Your task to perform on an android device: manage bookmarks in the chrome app Image 0: 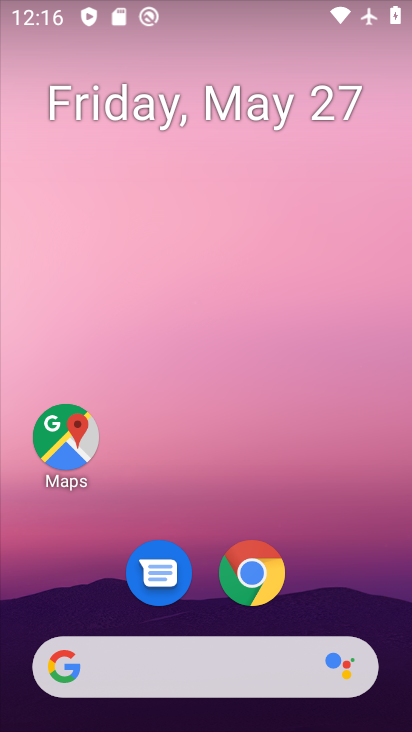
Step 0: click (252, 576)
Your task to perform on an android device: manage bookmarks in the chrome app Image 1: 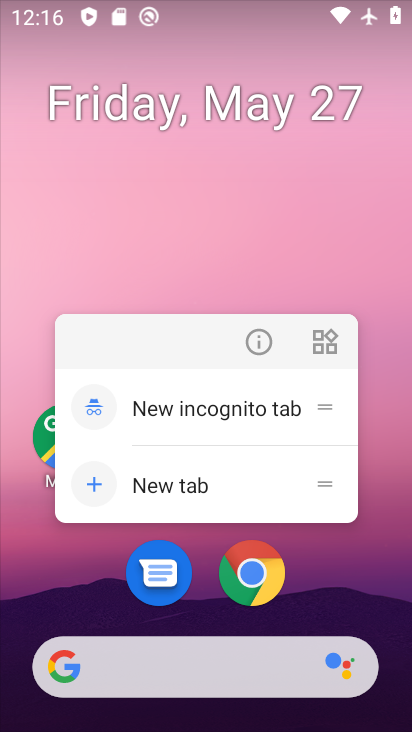
Step 1: click (252, 576)
Your task to perform on an android device: manage bookmarks in the chrome app Image 2: 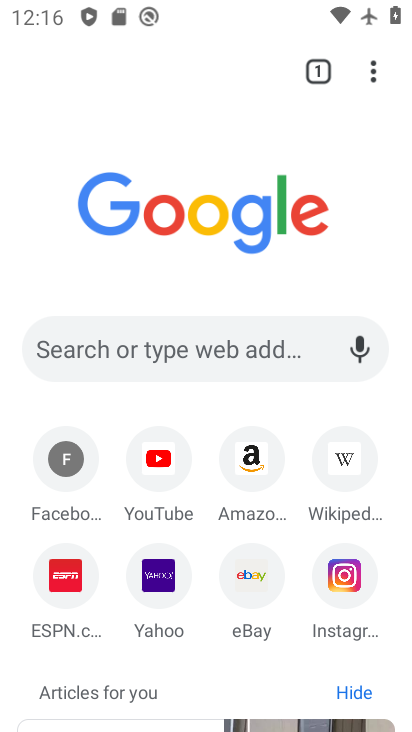
Step 2: drag from (379, 60) to (195, 273)
Your task to perform on an android device: manage bookmarks in the chrome app Image 3: 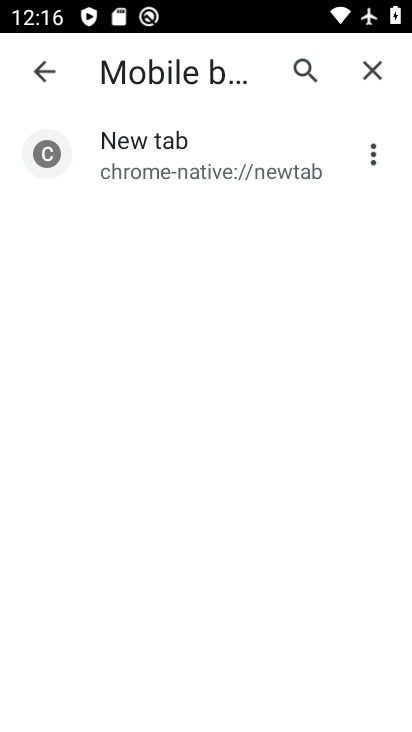
Step 3: click (378, 148)
Your task to perform on an android device: manage bookmarks in the chrome app Image 4: 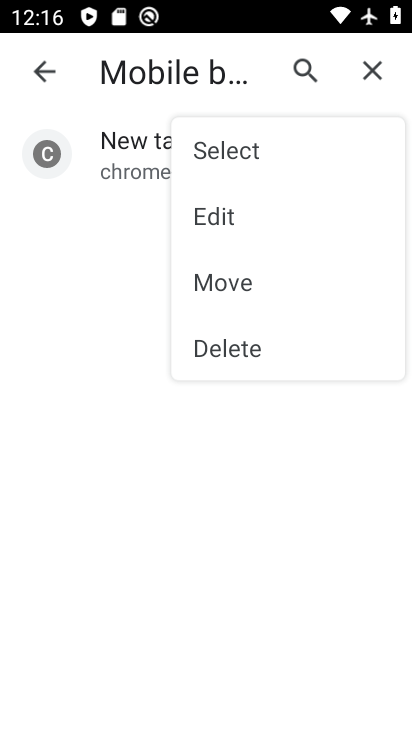
Step 4: click (222, 357)
Your task to perform on an android device: manage bookmarks in the chrome app Image 5: 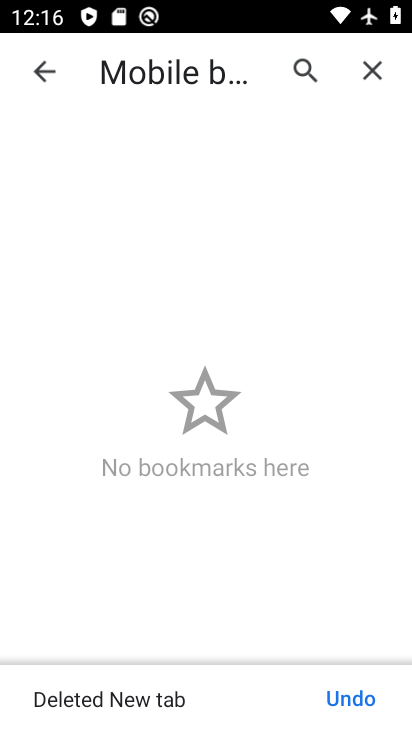
Step 5: task complete